Your task to perform on an android device: Open settings Image 0: 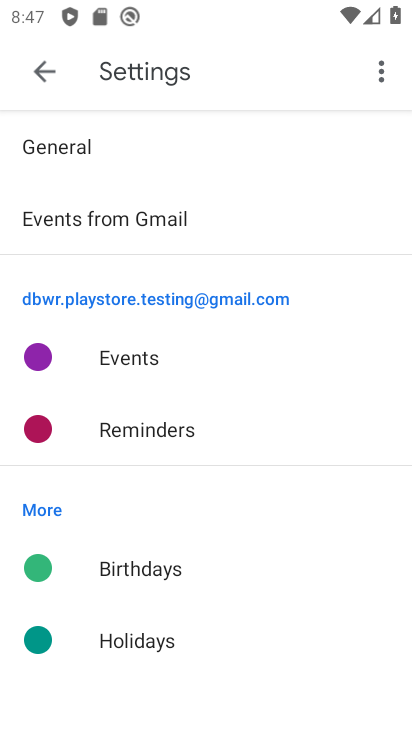
Step 0: press home button
Your task to perform on an android device: Open settings Image 1: 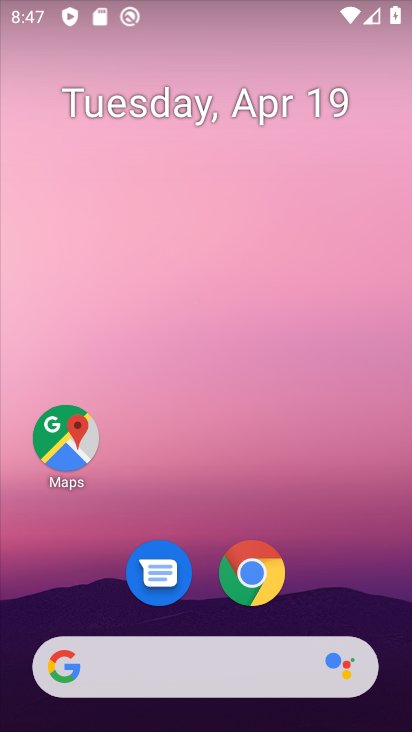
Step 1: drag from (214, 492) to (215, 83)
Your task to perform on an android device: Open settings Image 2: 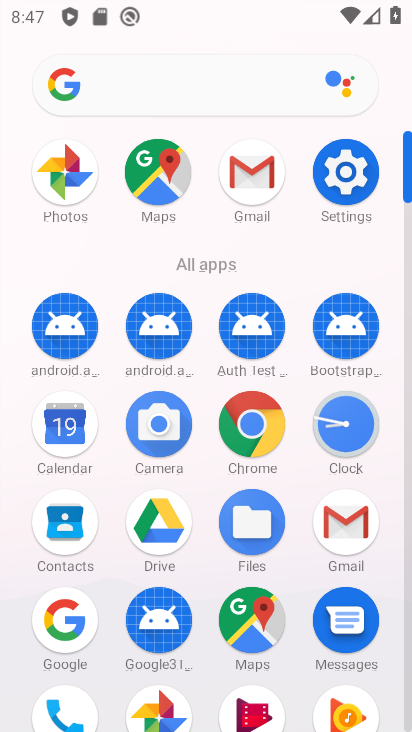
Step 2: click (344, 170)
Your task to perform on an android device: Open settings Image 3: 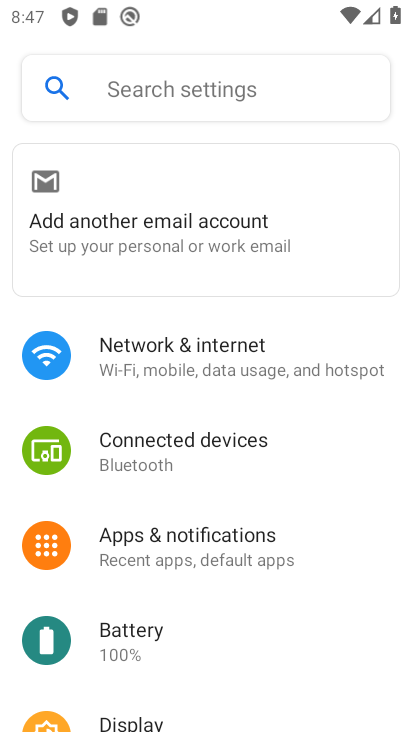
Step 3: task complete